Your task to perform on an android device: What's on my calendar today? Image 0: 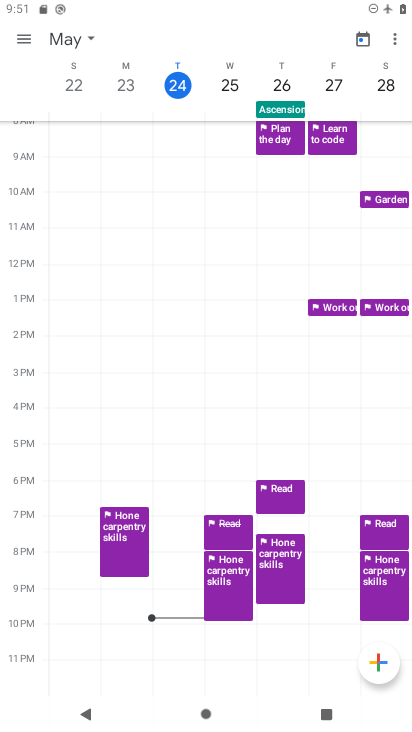
Step 0: press home button
Your task to perform on an android device: What's on my calendar today? Image 1: 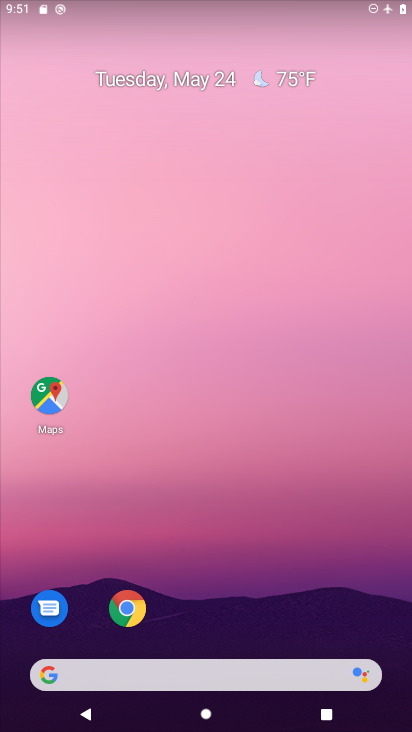
Step 1: click (184, 75)
Your task to perform on an android device: What's on my calendar today? Image 2: 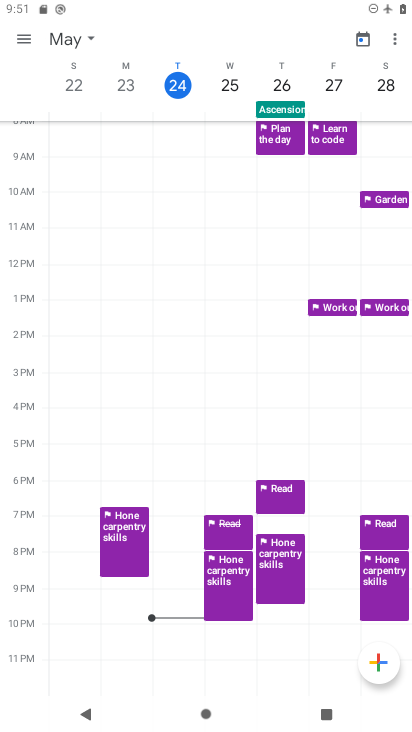
Step 2: task complete